Your task to perform on an android device: search for accent chairs on article.com Image 0: 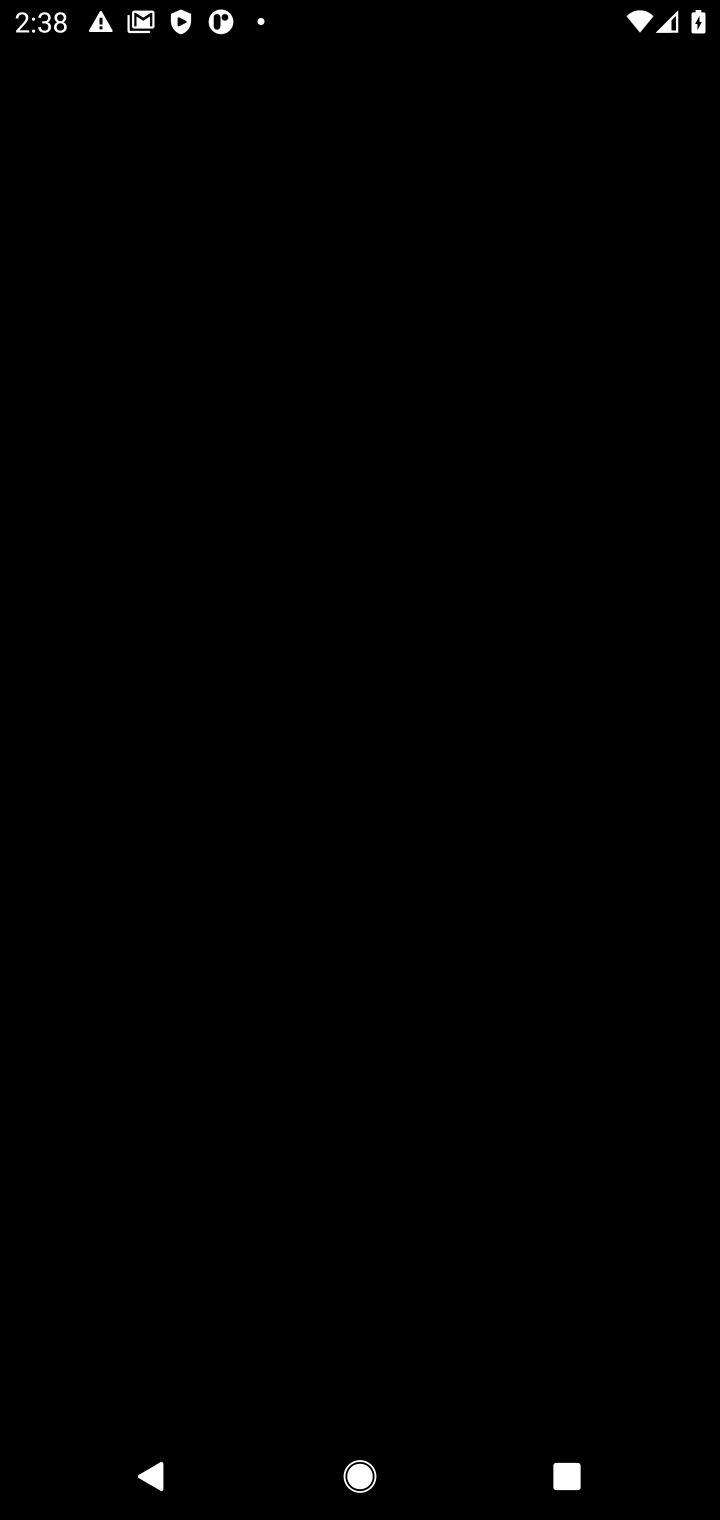
Step 0: press home button
Your task to perform on an android device: search for accent chairs on article.com Image 1: 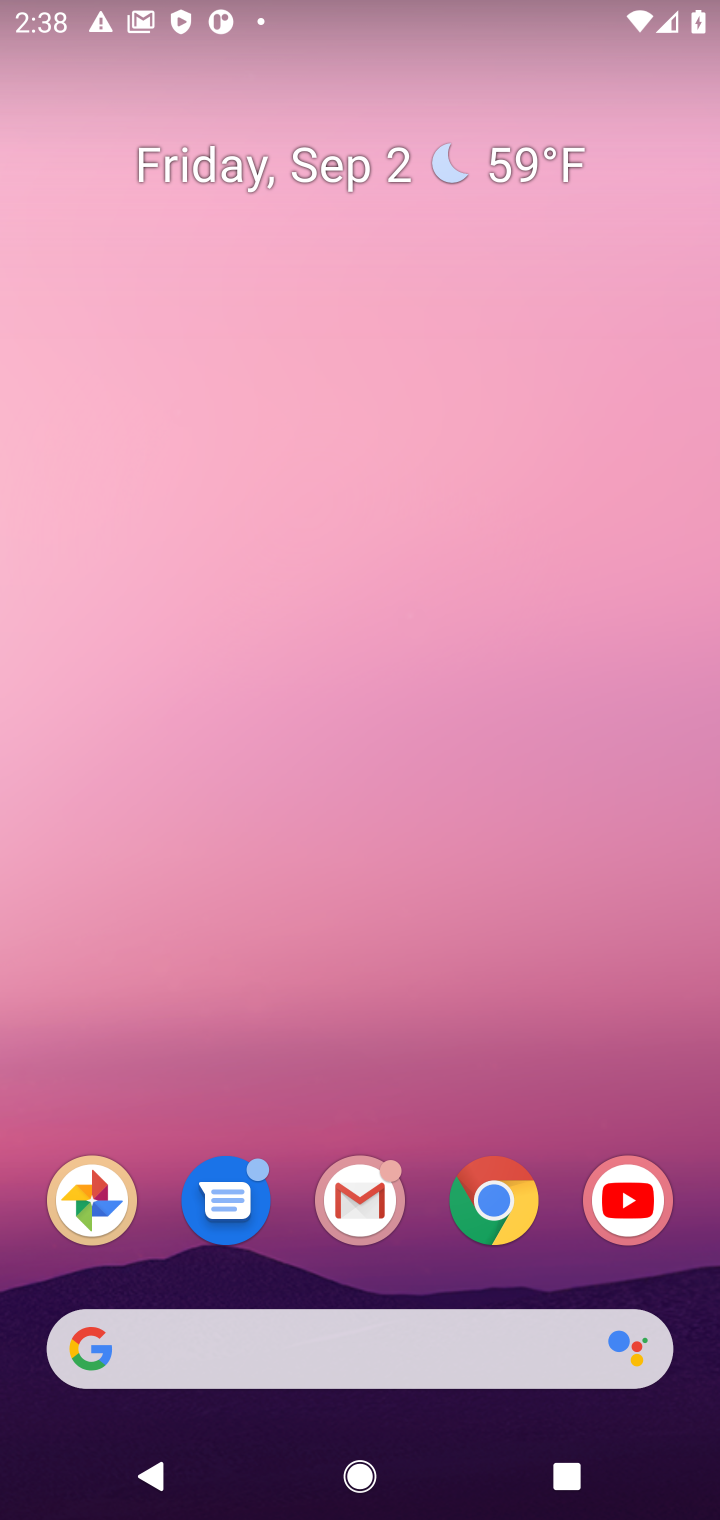
Step 1: click (484, 1193)
Your task to perform on an android device: search for accent chairs on article.com Image 2: 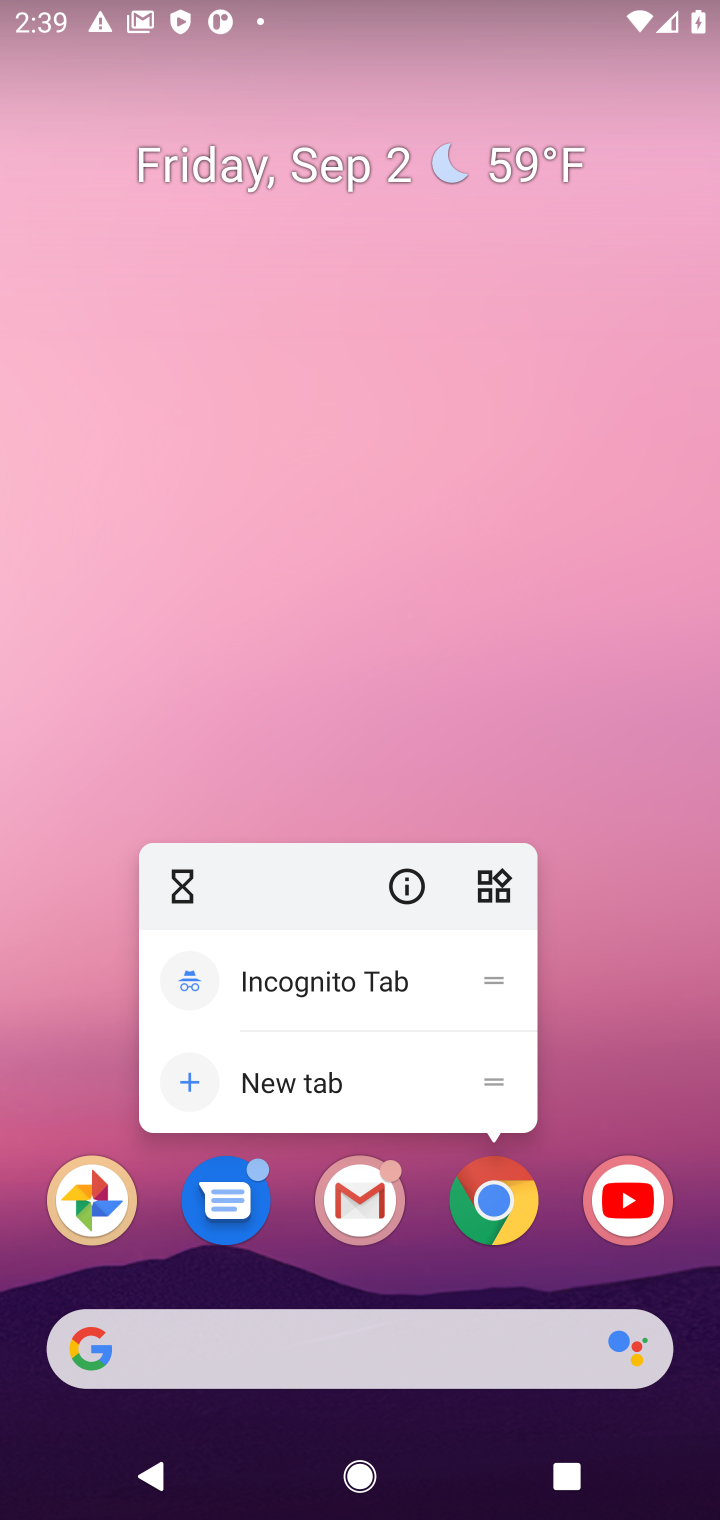
Step 2: click (484, 1191)
Your task to perform on an android device: search for accent chairs on article.com Image 3: 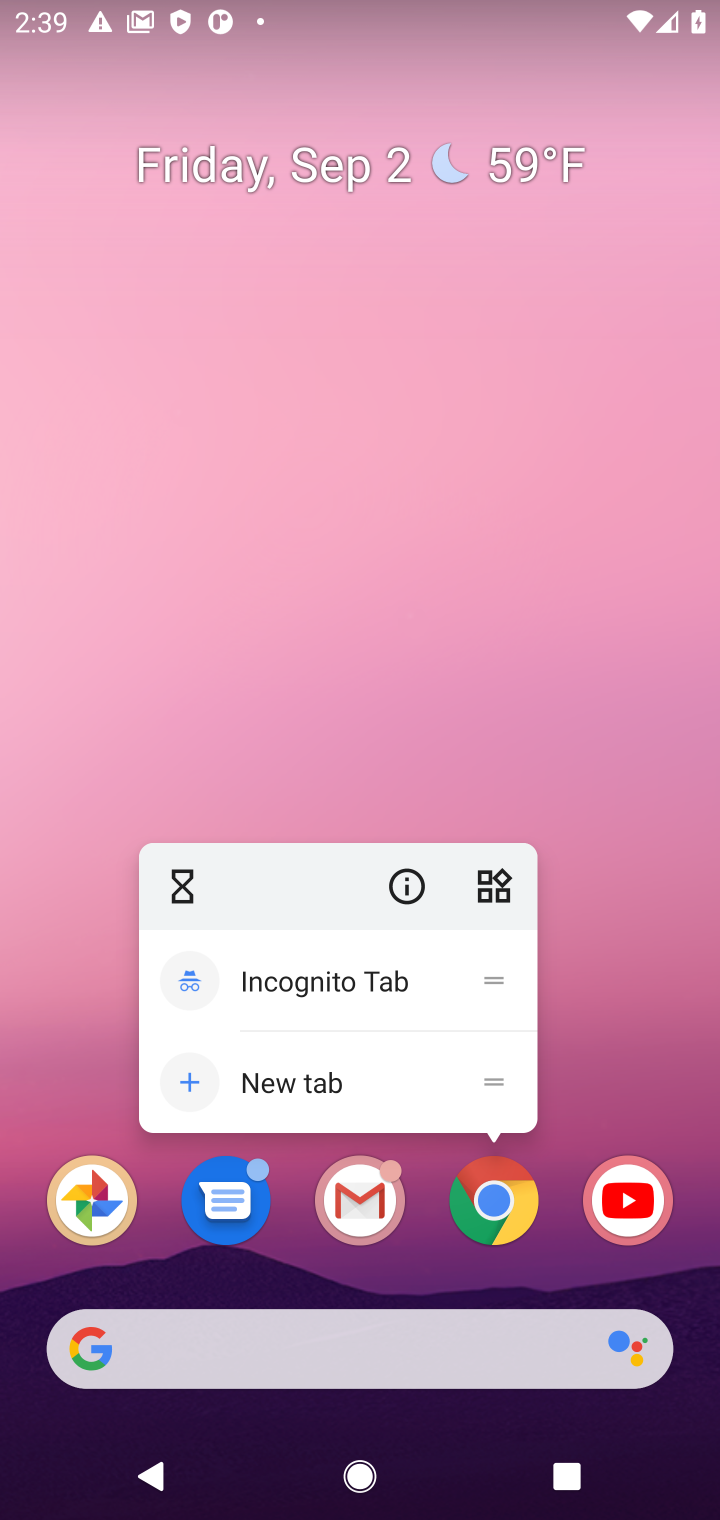
Step 3: click (494, 1183)
Your task to perform on an android device: search for accent chairs on article.com Image 4: 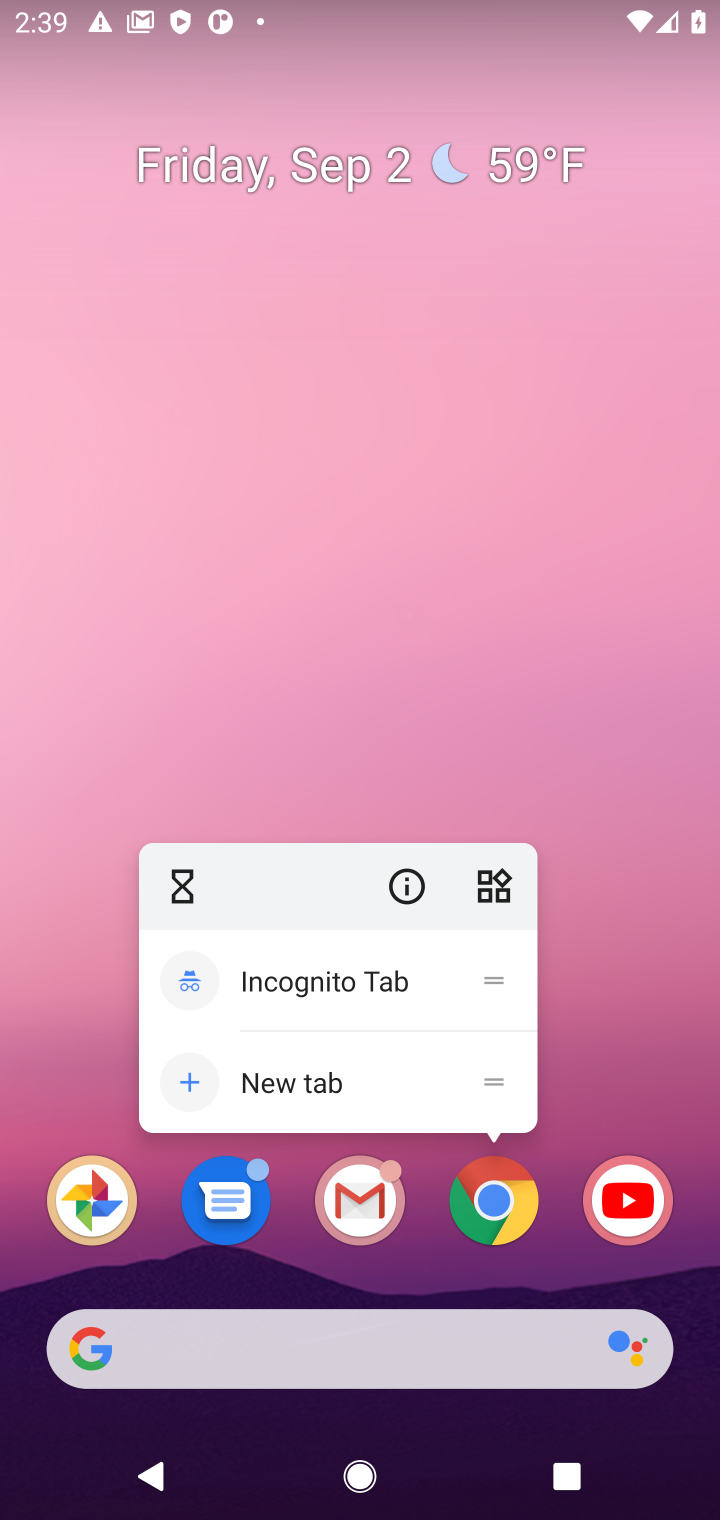
Step 4: click (491, 1197)
Your task to perform on an android device: search for accent chairs on article.com Image 5: 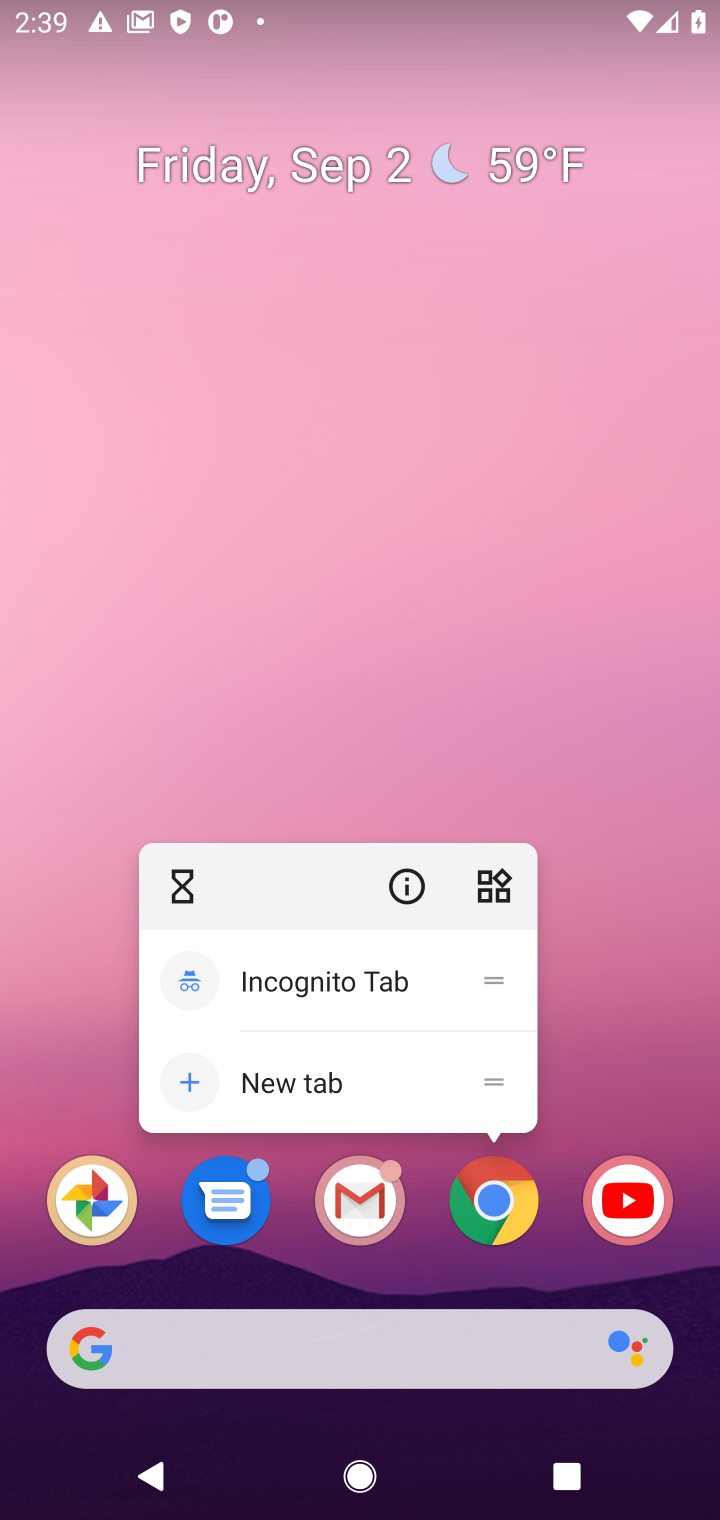
Step 5: click (491, 1199)
Your task to perform on an android device: search for accent chairs on article.com Image 6: 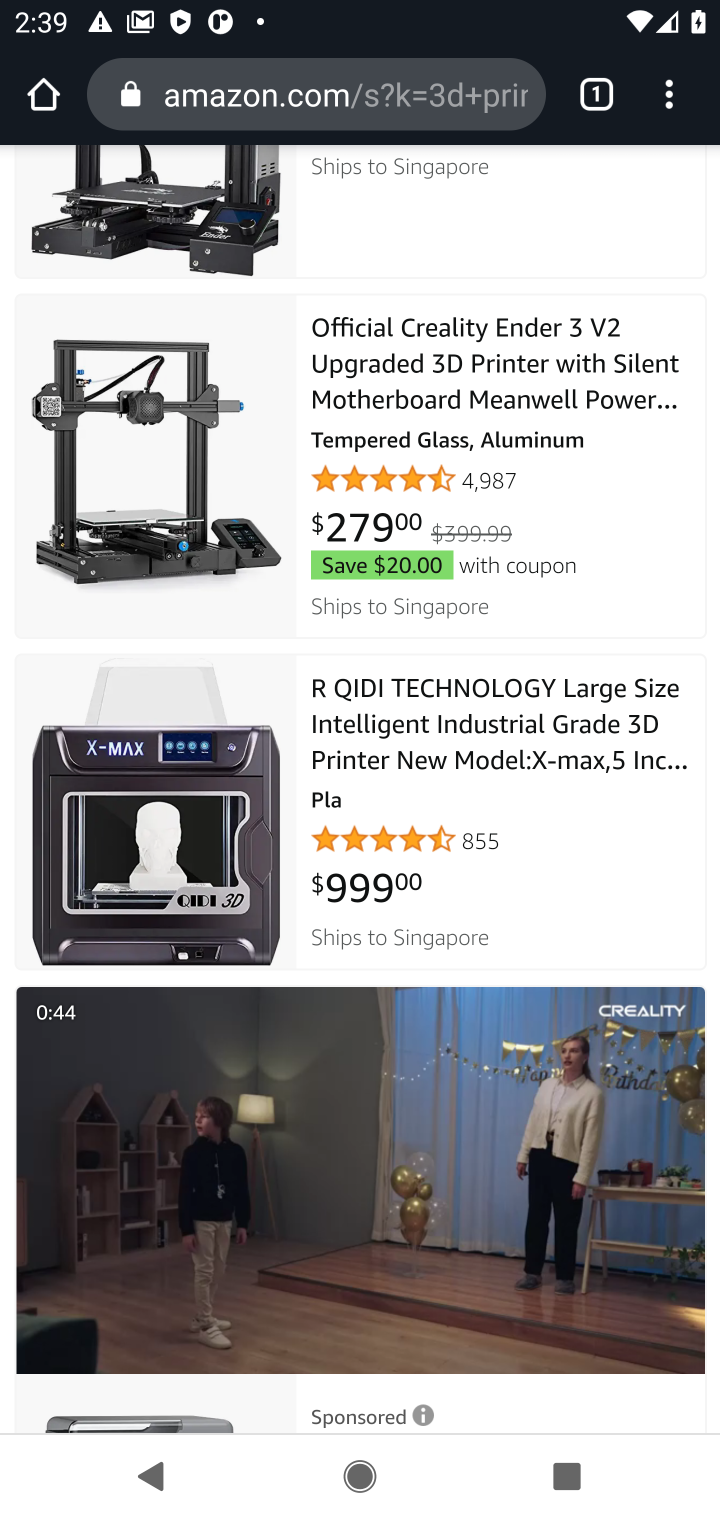
Step 6: click (318, 81)
Your task to perform on an android device: search for accent chairs on article.com Image 7: 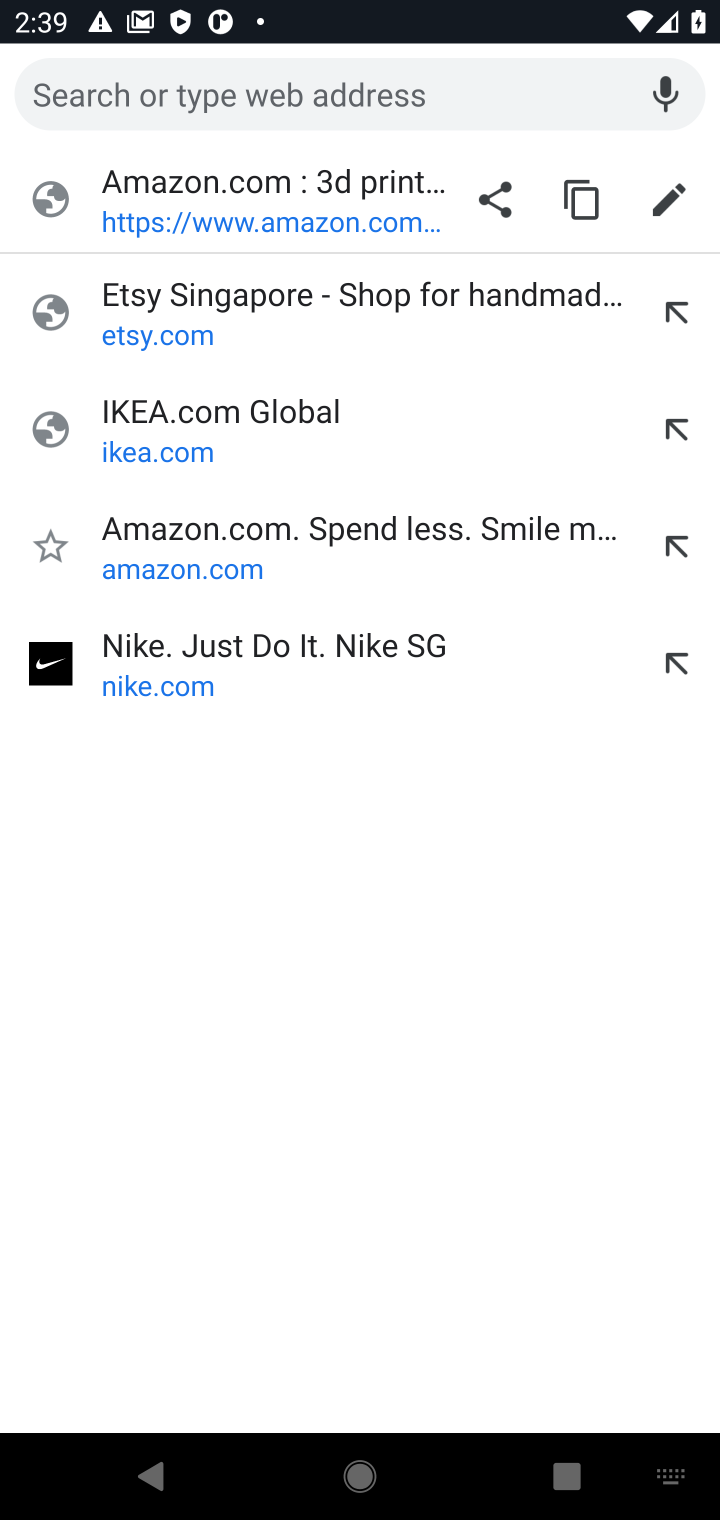
Step 7: type "article.com"
Your task to perform on an android device: search for accent chairs on article.com Image 8: 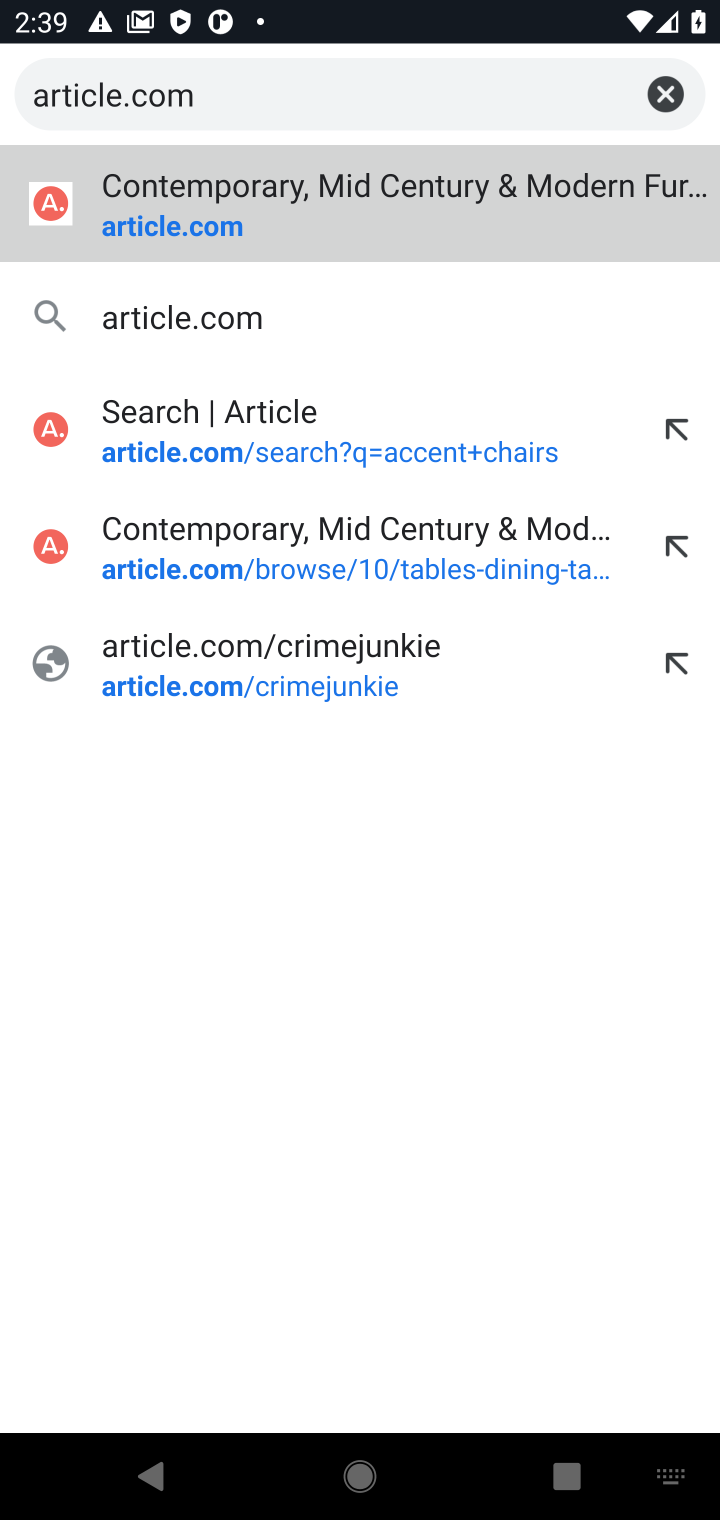
Step 8: press enter
Your task to perform on an android device: search for accent chairs on article.com Image 9: 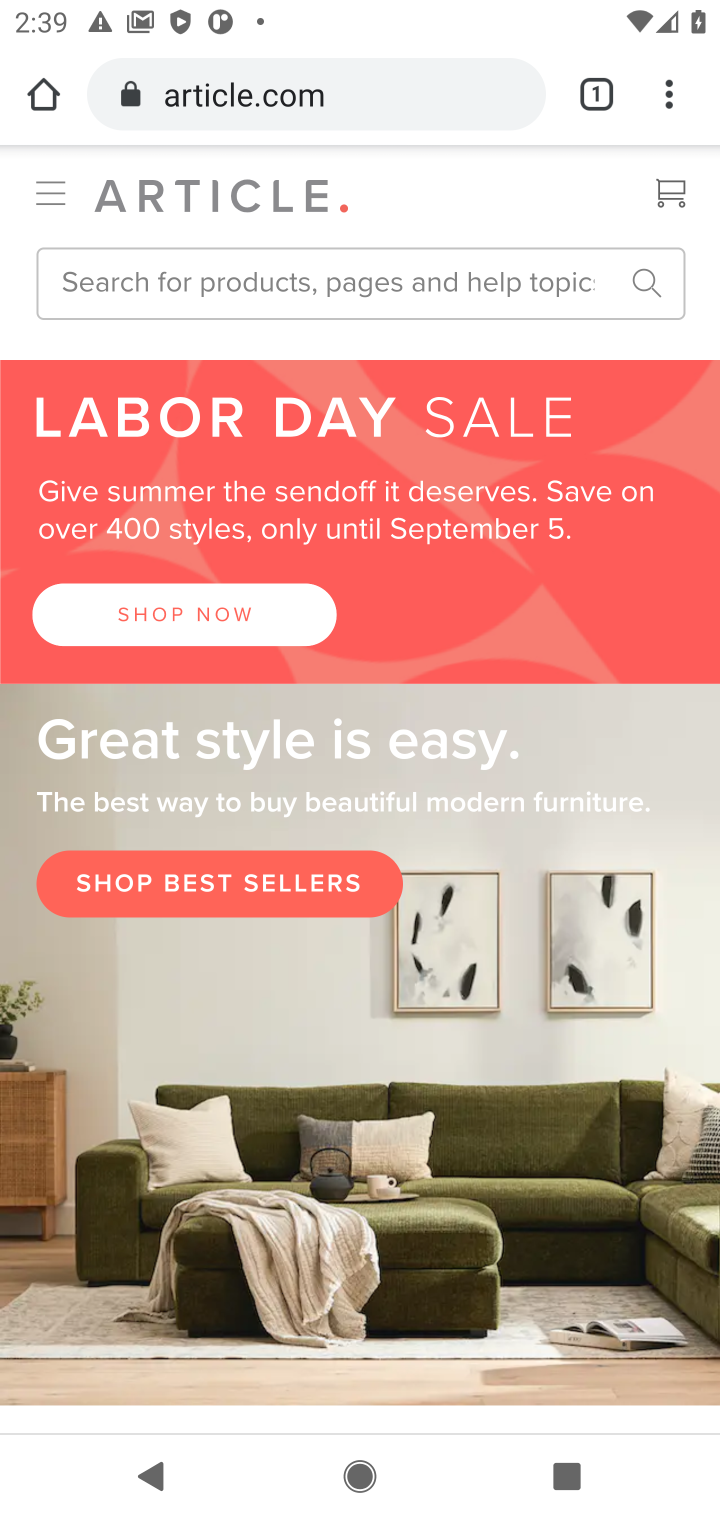
Step 9: click (362, 280)
Your task to perform on an android device: search for accent chairs on article.com Image 10: 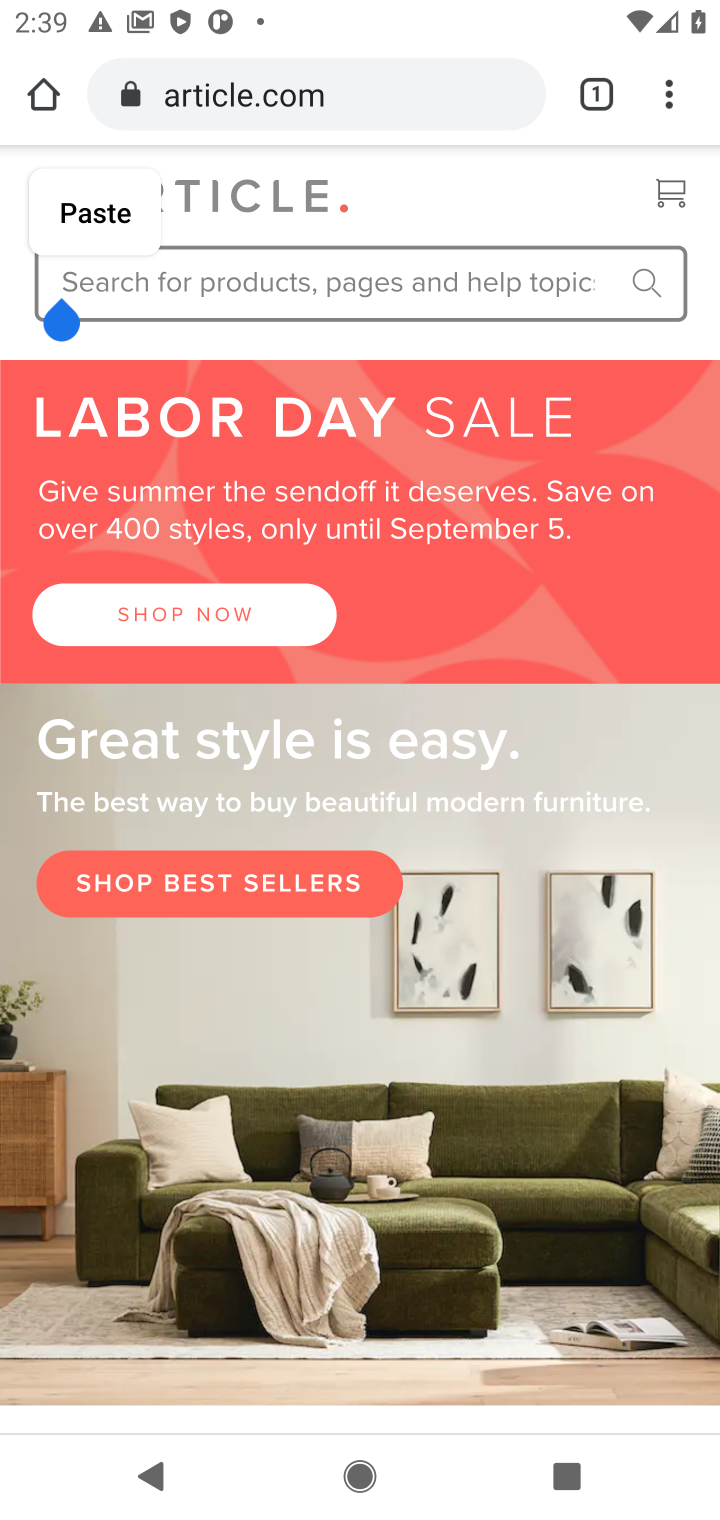
Step 10: type " accent chairs "
Your task to perform on an android device: search for accent chairs on article.com Image 11: 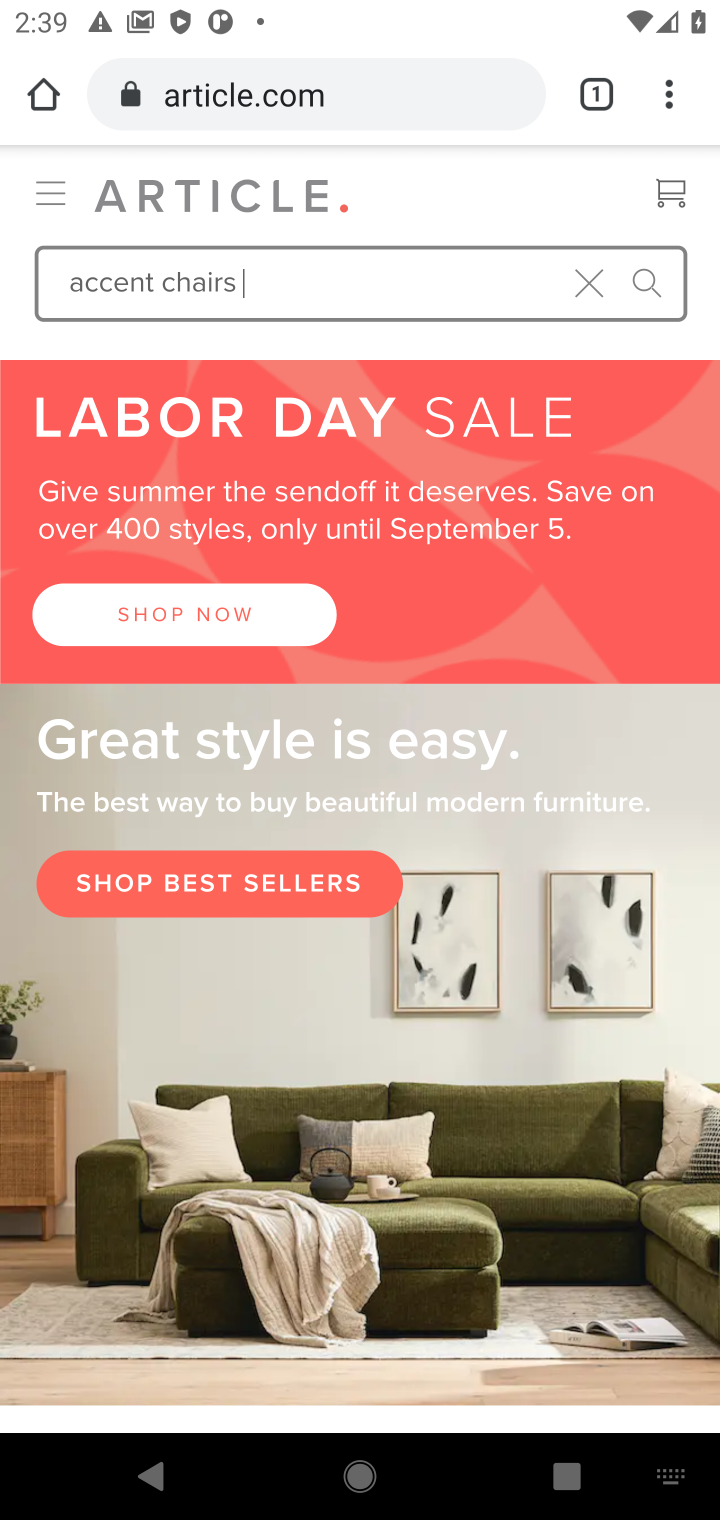
Step 11: press enter
Your task to perform on an android device: search for accent chairs on article.com Image 12: 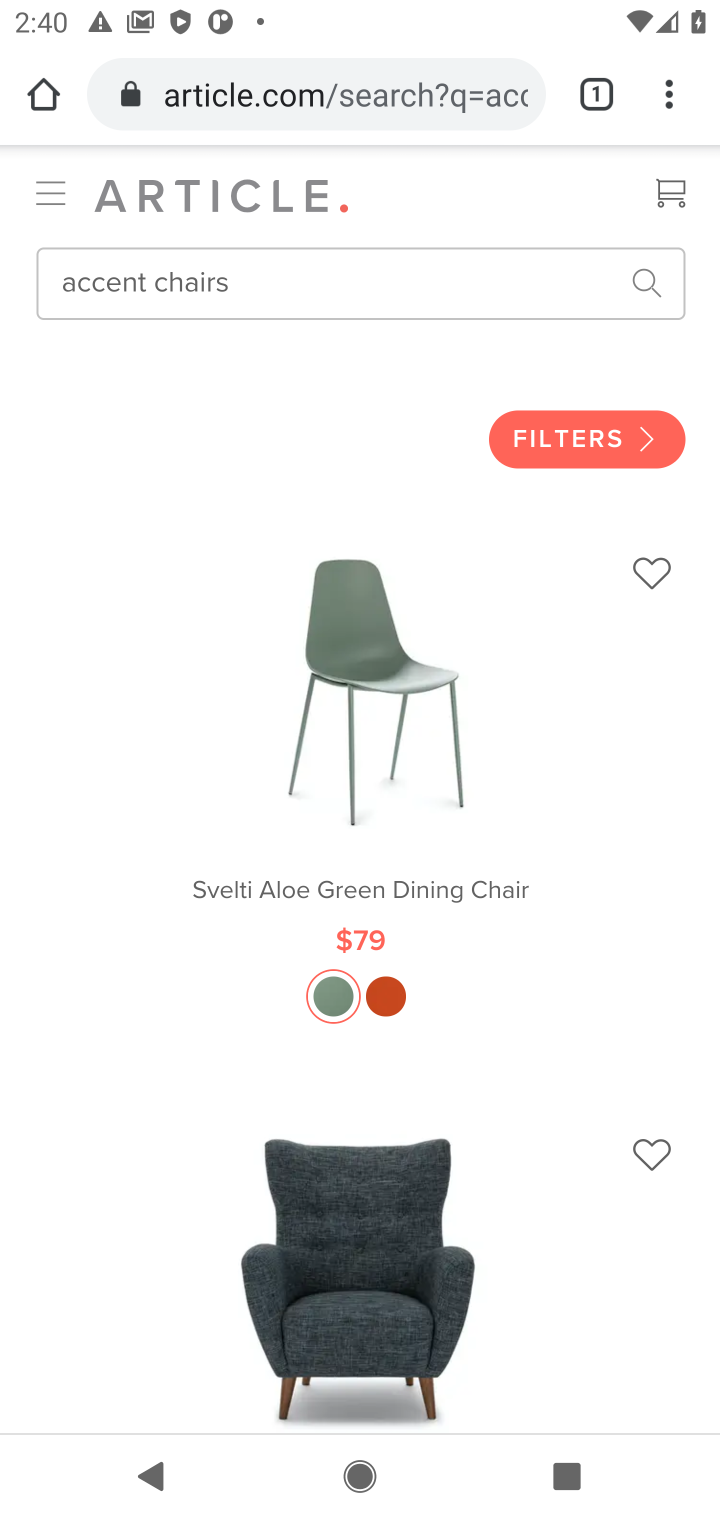
Step 12: drag from (164, 1297) to (523, 305)
Your task to perform on an android device: search for accent chairs on article.com Image 13: 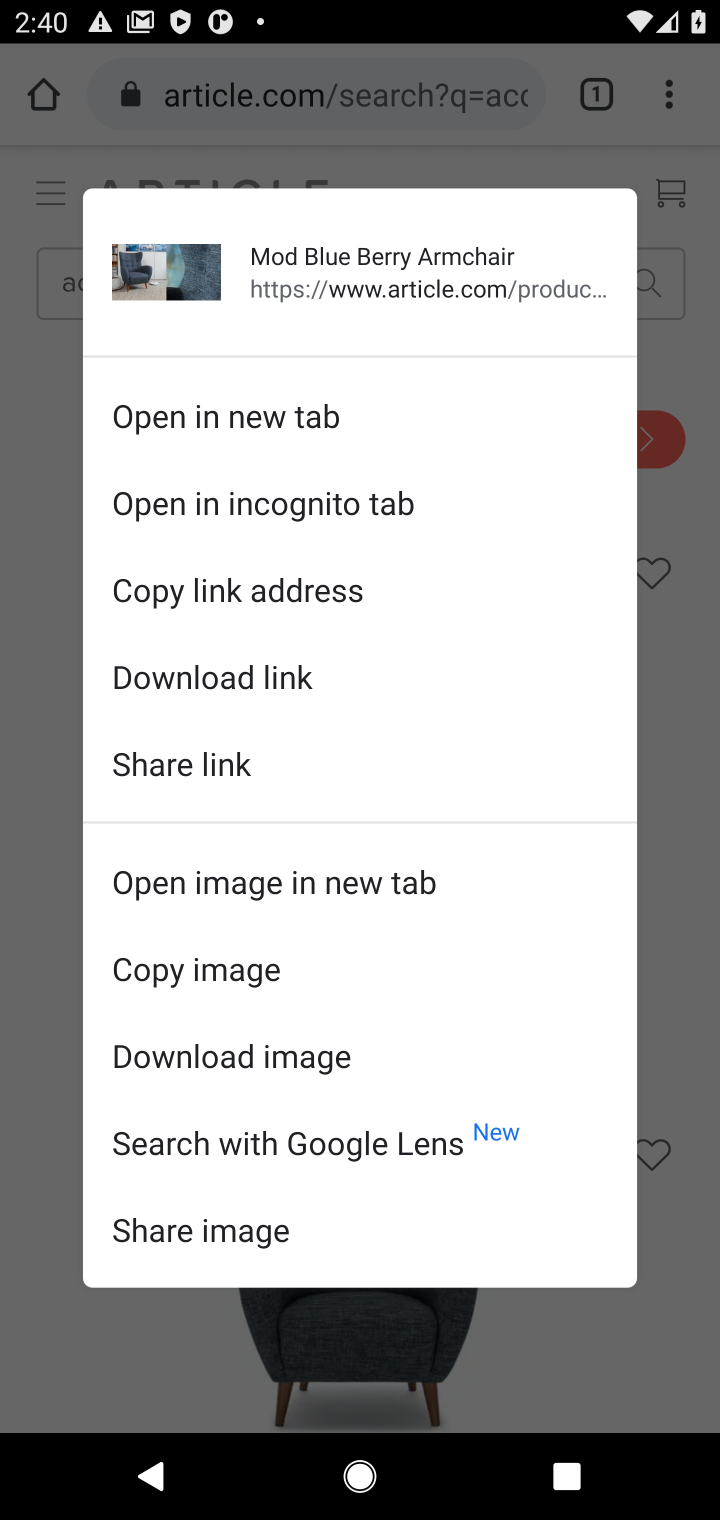
Step 13: click (699, 736)
Your task to perform on an android device: search for accent chairs on article.com Image 14: 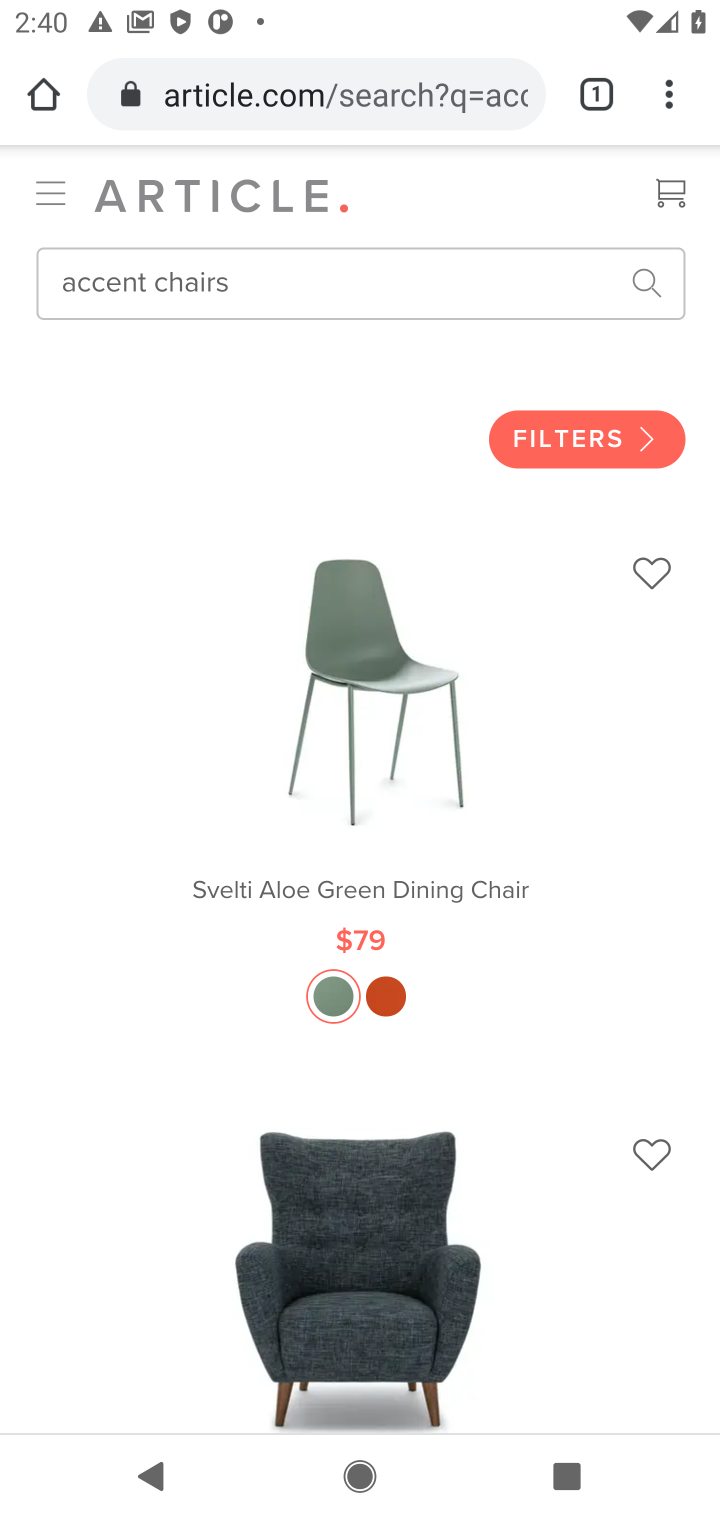
Step 14: task complete